Your task to perform on an android device: Open the calendar app, open the side menu, and click the "Day" option Image 0: 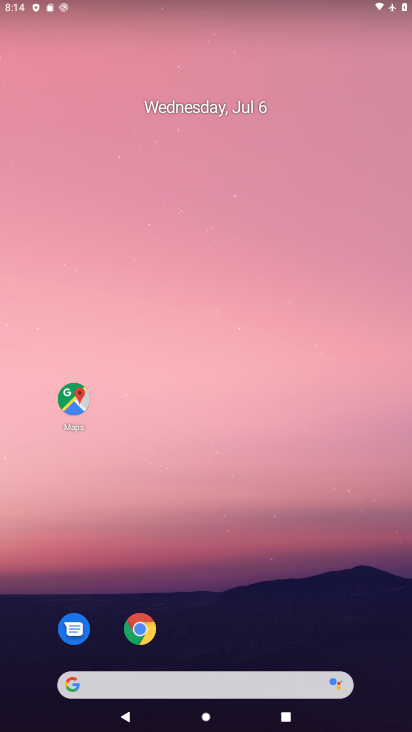
Step 0: drag from (367, 532) to (249, 193)
Your task to perform on an android device: Open the calendar app, open the side menu, and click the "Day" option Image 1: 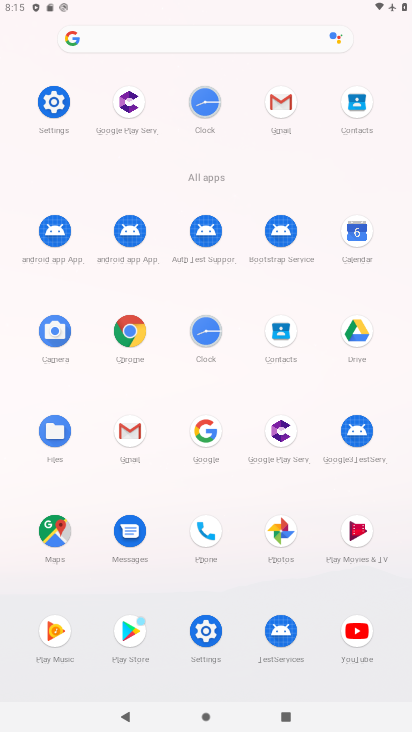
Step 1: click (354, 238)
Your task to perform on an android device: Open the calendar app, open the side menu, and click the "Day" option Image 2: 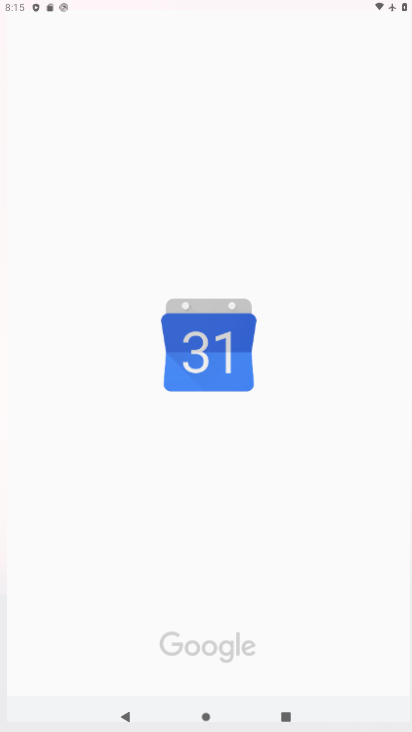
Step 2: click (353, 231)
Your task to perform on an android device: Open the calendar app, open the side menu, and click the "Day" option Image 3: 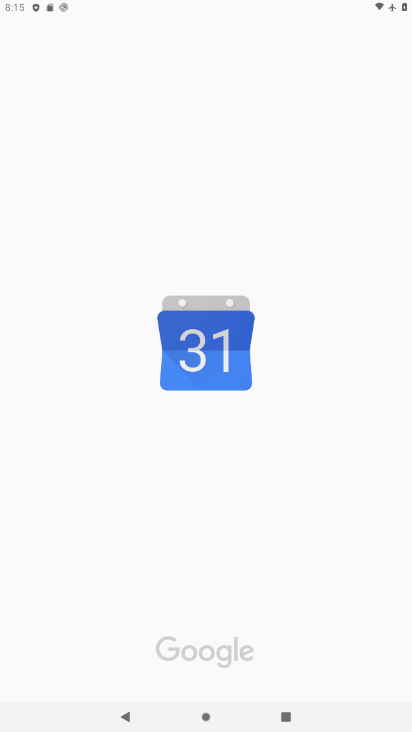
Step 3: click (354, 236)
Your task to perform on an android device: Open the calendar app, open the side menu, and click the "Day" option Image 4: 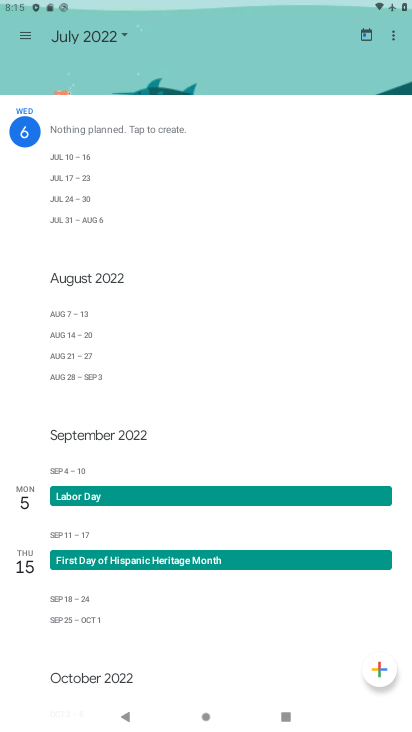
Step 4: click (26, 37)
Your task to perform on an android device: Open the calendar app, open the side menu, and click the "Day" option Image 5: 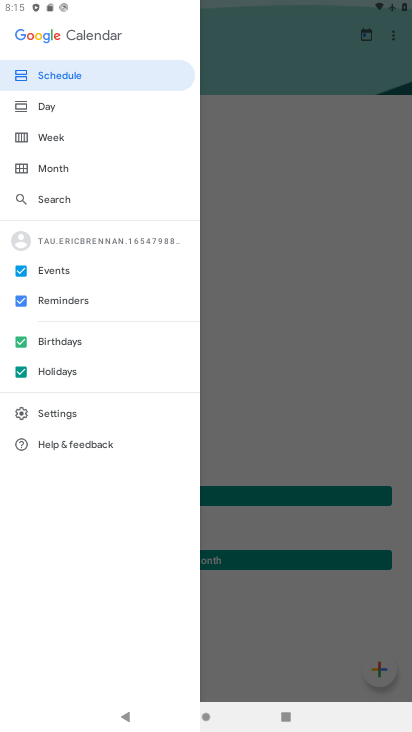
Step 5: click (43, 105)
Your task to perform on an android device: Open the calendar app, open the side menu, and click the "Day" option Image 6: 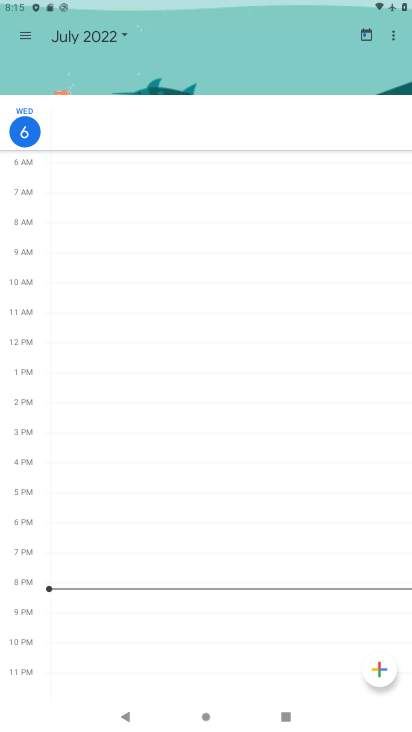
Step 6: task complete